Your task to perform on an android device: Show the shopping cart on ebay. Add "asus rog" to the cart on ebay, then select checkout. Image 0: 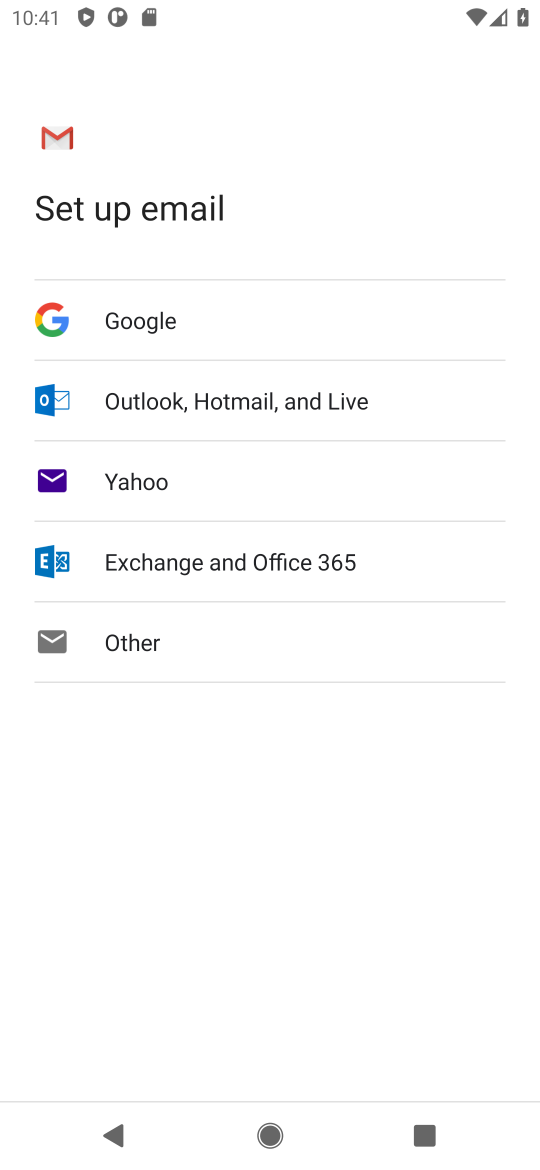
Step 0: press home button
Your task to perform on an android device: Show the shopping cart on ebay. Add "asus rog" to the cart on ebay, then select checkout. Image 1: 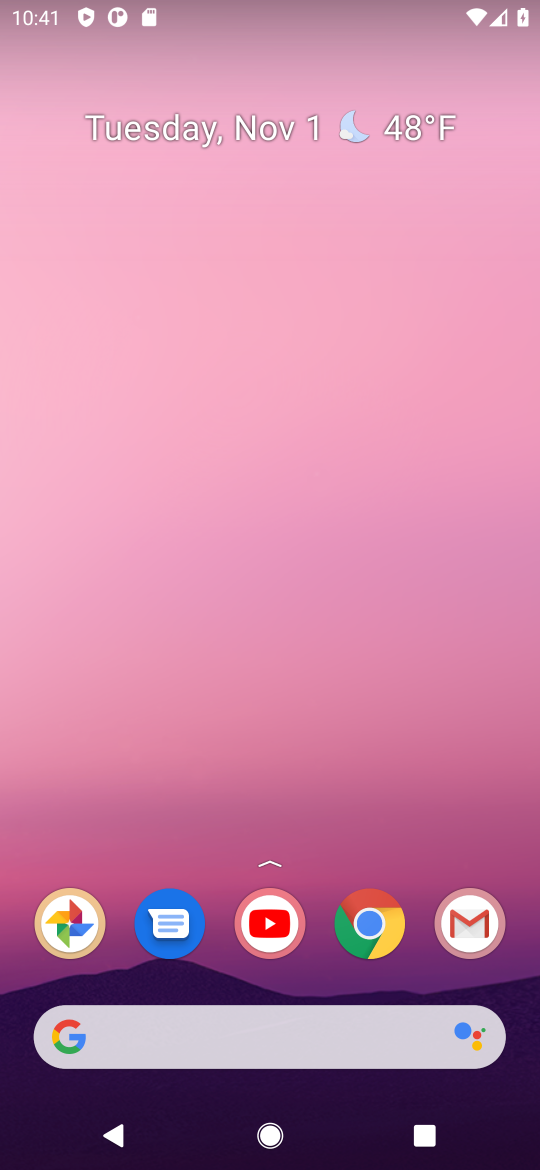
Step 1: click (373, 920)
Your task to perform on an android device: Show the shopping cart on ebay. Add "asus rog" to the cart on ebay, then select checkout. Image 2: 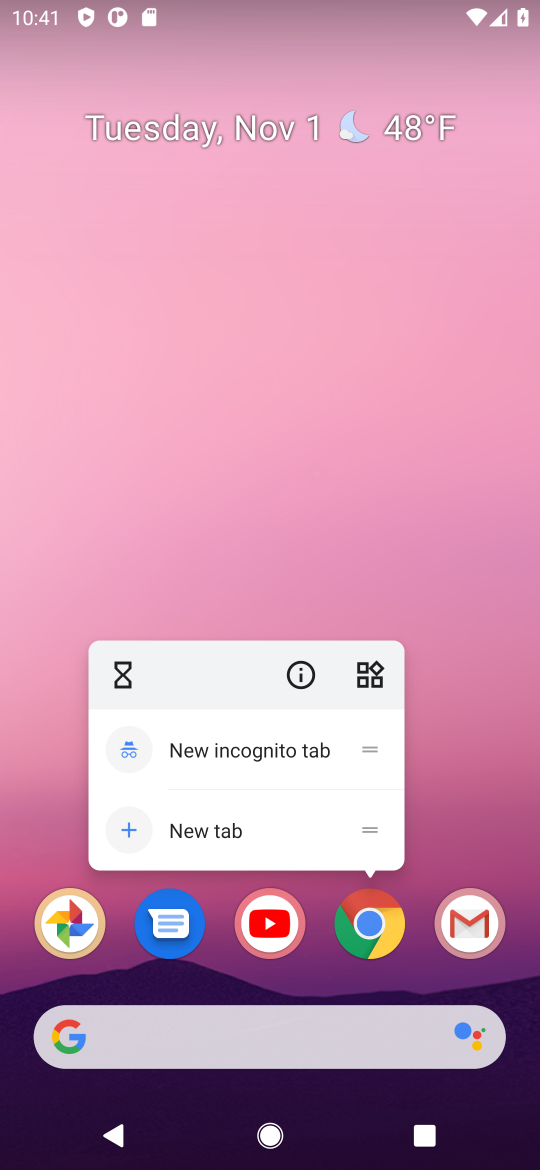
Step 2: click (374, 936)
Your task to perform on an android device: Show the shopping cart on ebay. Add "asus rog" to the cart on ebay, then select checkout. Image 3: 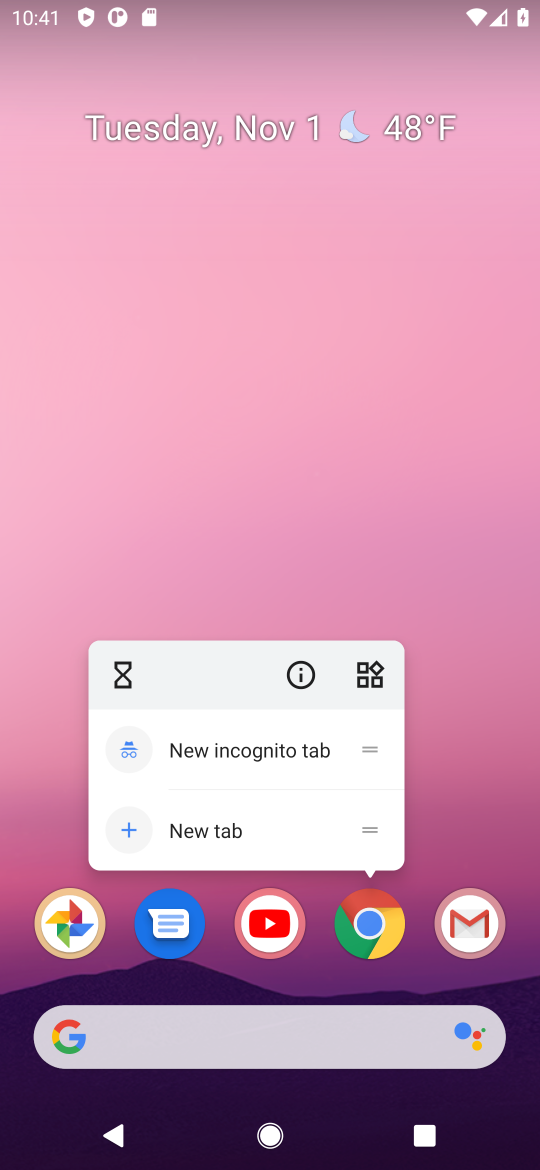
Step 3: click (374, 936)
Your task to perform on an android device: Show the shopping cart on ebay. Add "asus rog" to the cart on ebay, then select checkout. Image 4: 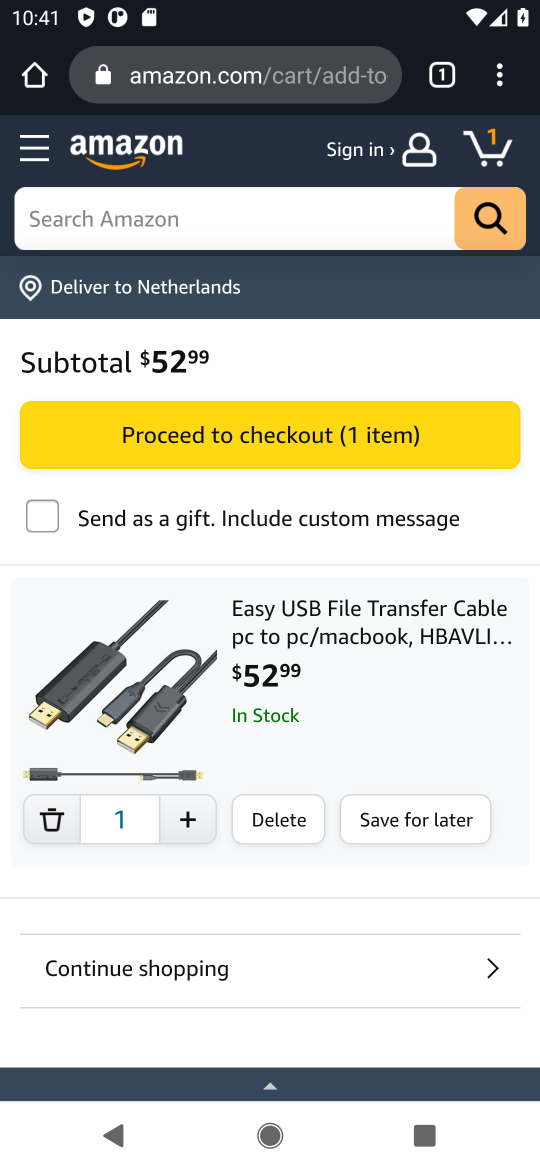
Step 4: click (213, 73)
Your task to perform on an android device: Show the shopping cart on ebay. Add "asus rog" to the cart on ebay, then select checkout. Image 5: 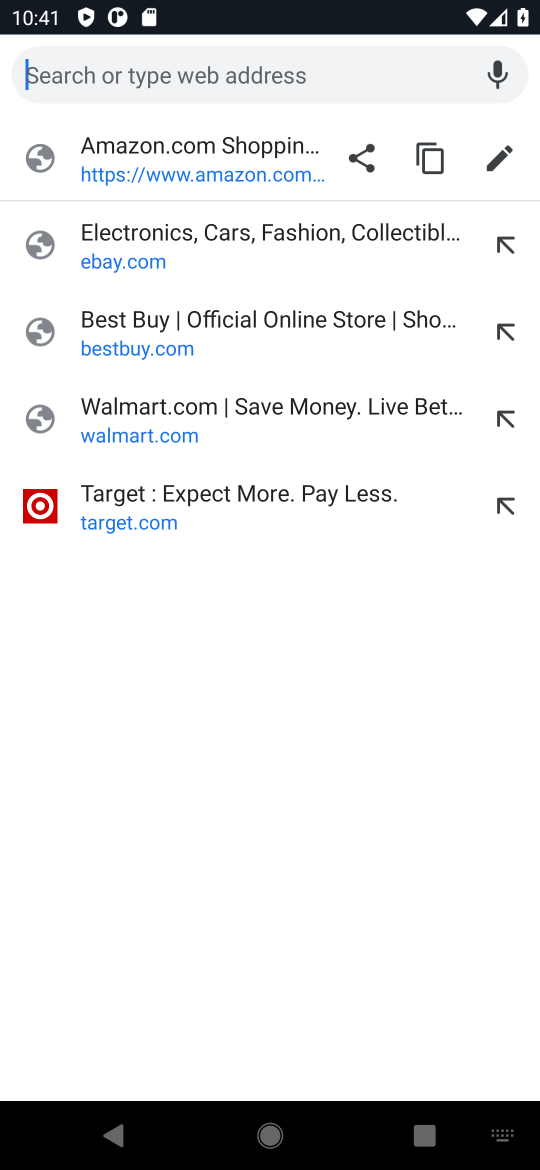
Step 5: type "ebay"
Your task to perform on an android device: Show the shopping cart on ebay. Add "asus rog" to the cart on ebay, then select checkout. Image 6: 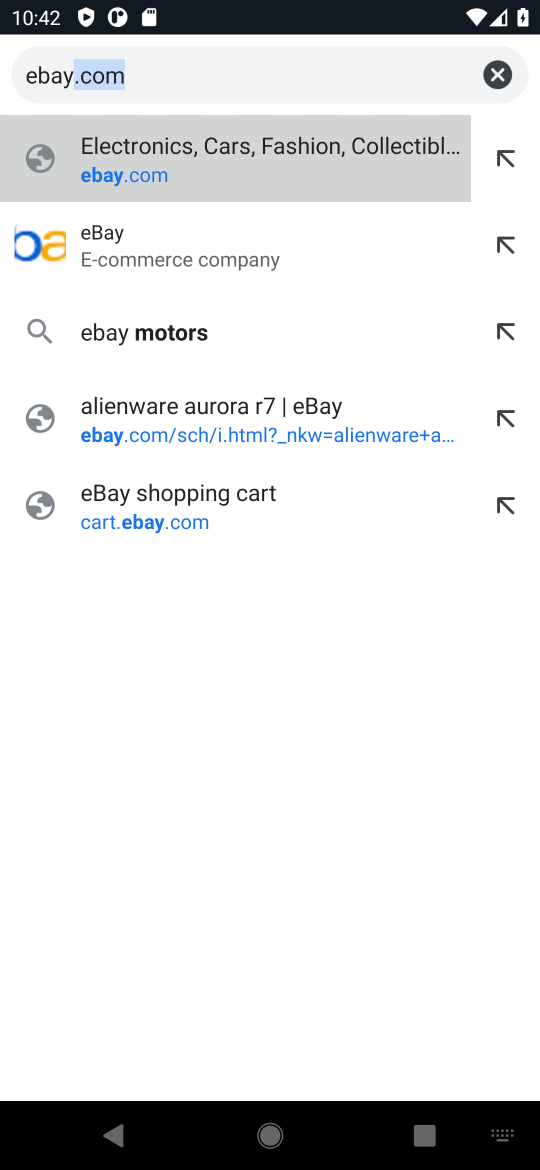
Step 6: click (281, 163)
Your task to perform on an android device: Show the shopping cart on ebay. Add "asus rog" to the cart on ebay, then select checkout. Image 7: 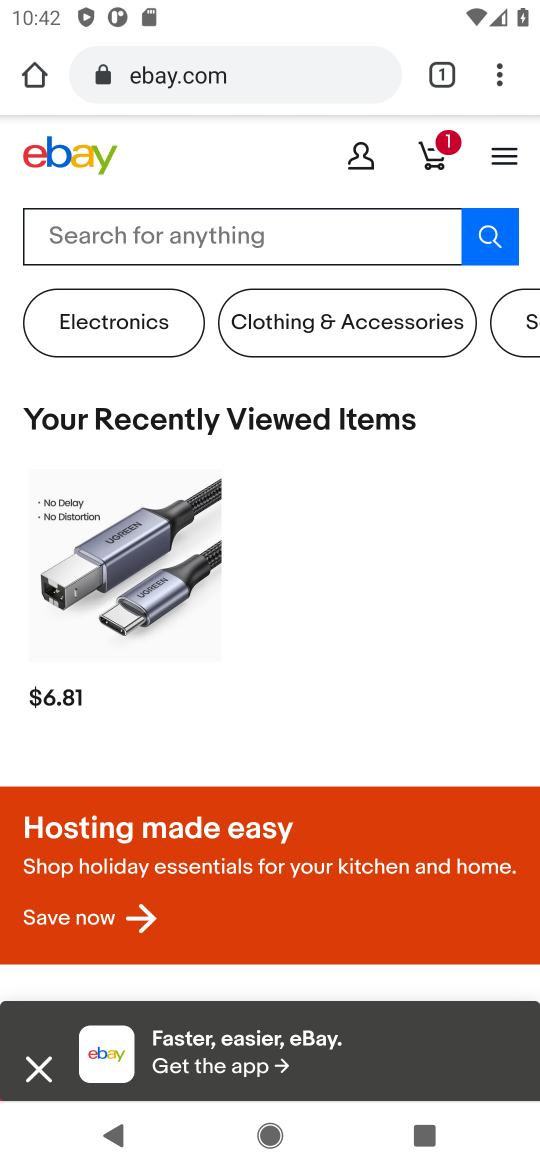
Step 7: click (352, 229)
Your task to perform on an android device: Show the shopping cart on ebay. Add "asus rog" to the cart on ebay, then select checkout. Image 8: 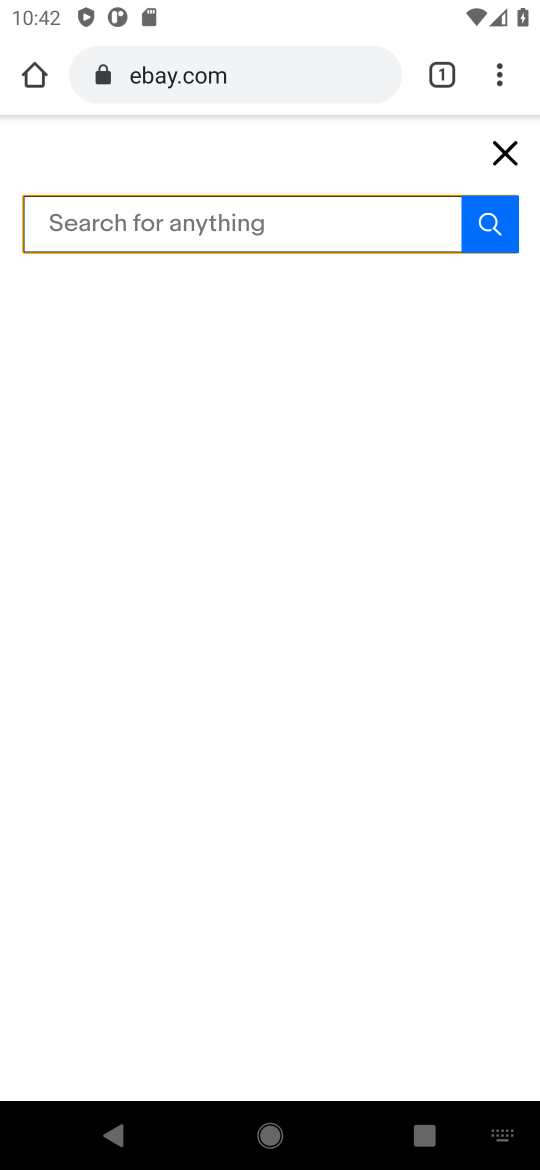
Step 8: type "asus rog"
Your task to perform on an android device: Show the shopping cart on ebay. Add "asus rog" to the cart on ebay, then select checkout. Image 9: 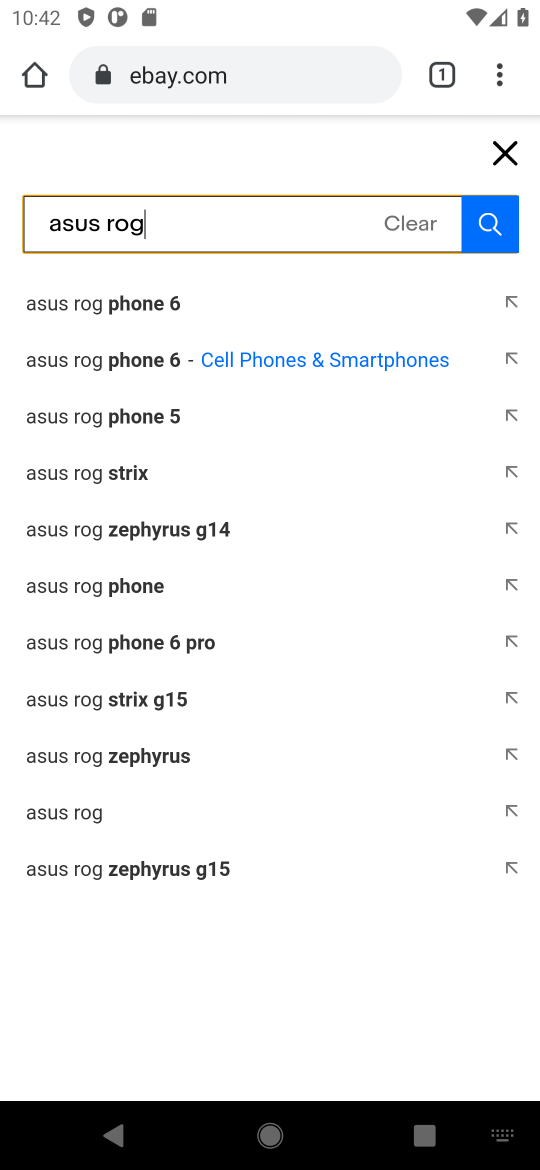
Step 9: press enter
Your task to perform on an android device: Show the shopping cart on ebay. Add "asus rog" to the cart on ebay, then select checkout. Image 10: 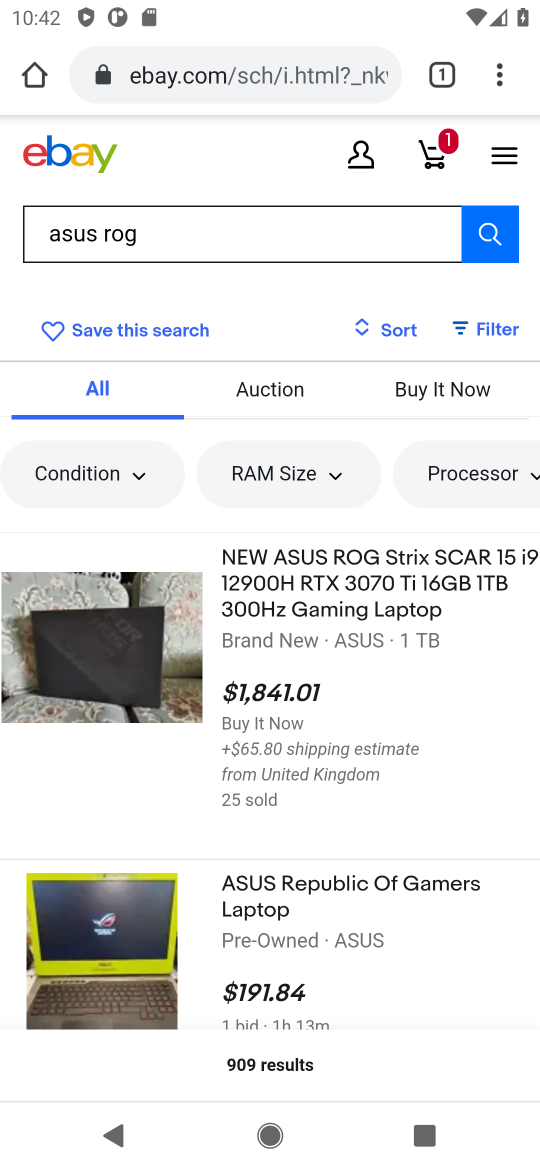
Step 10: click (119, 638)
Your task to perform on an android device: Show the shopping cart on ebay. Add "asus rog" to the cart on ebay, then select checkout. Image 11: 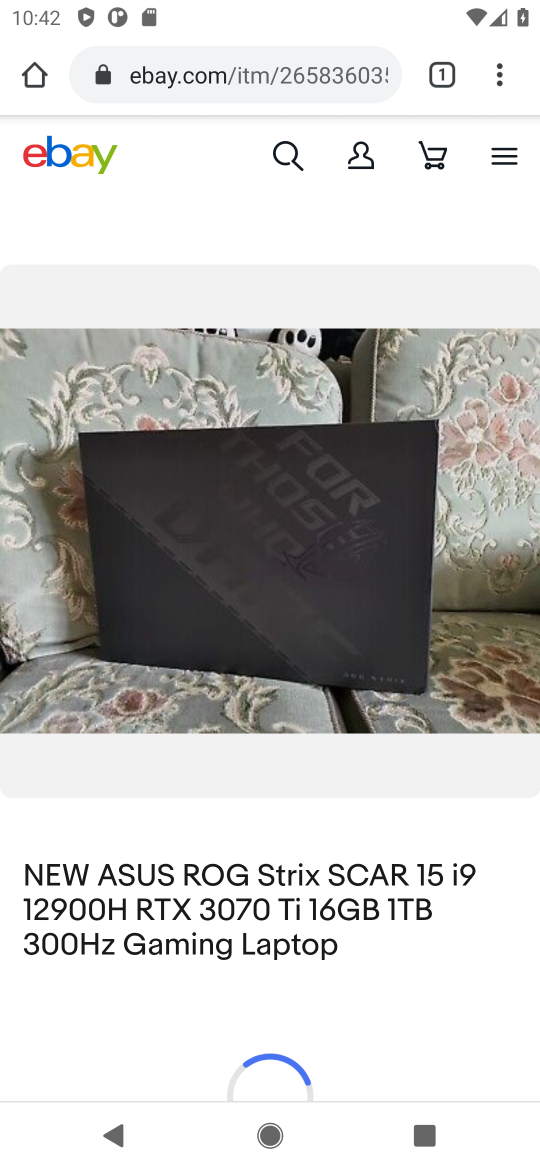
Step 11: drag from (436, 1045) to (299, 456)
Your task to perform on an android device: Show the shopping cart on ebay. Add "asus rog" to the cart on ebay, then select checkout. Image 12: 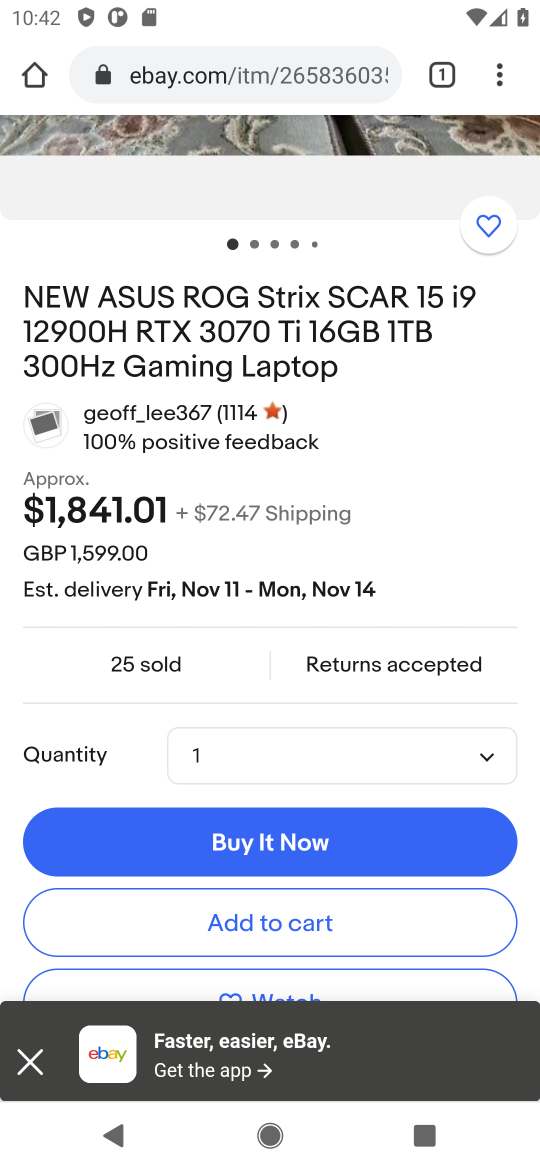
Step 12: click (319, 927)
Your task to perform on an android device: Show the shopping cart on ebay. Add "asus rog" to the cart on ebay, then select checkout. Image 13: 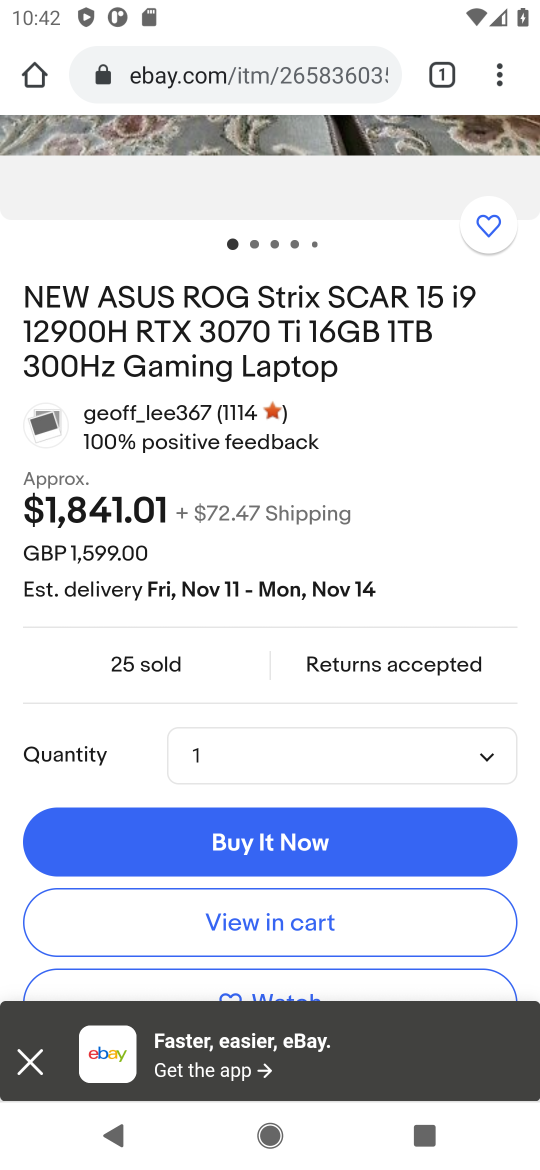
Step 13: task complete